Your task to perform on an android device: When is my next appointment? Image 0: 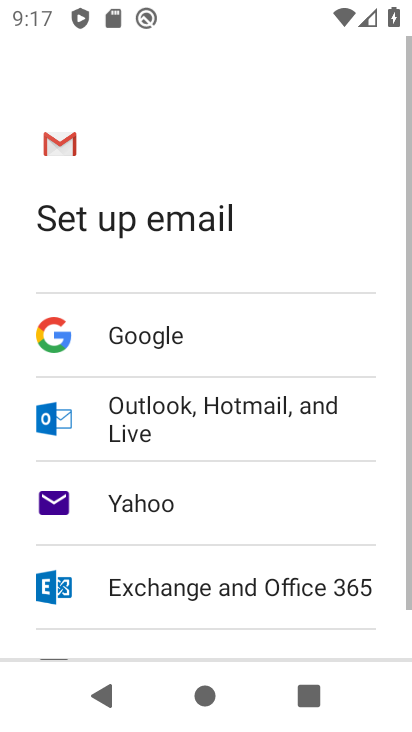
Step 0: press home button
Your task to perform on an android device: When is my next appointment? Image 1: 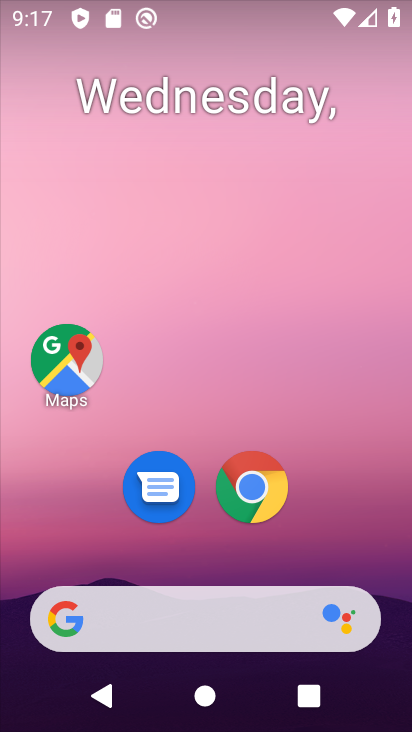
Step 1: drag from (190, 558) to (207, 188)
Your task to perform on an android device: When is my next appointment? Image 2: 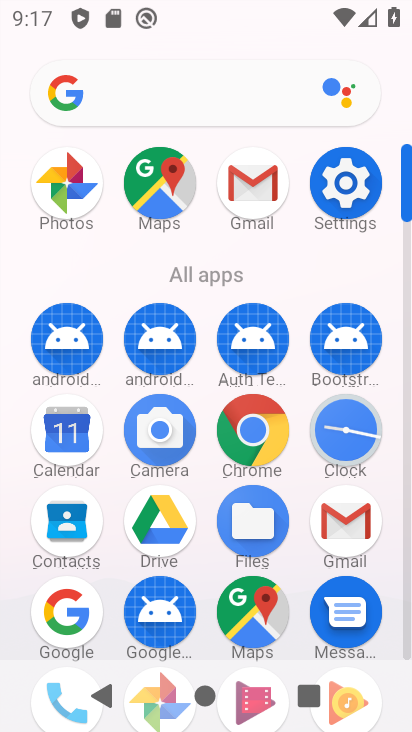
Step 2: click (66, 439)
Your task to perform on an android device: When is my next appointment? Image 3: 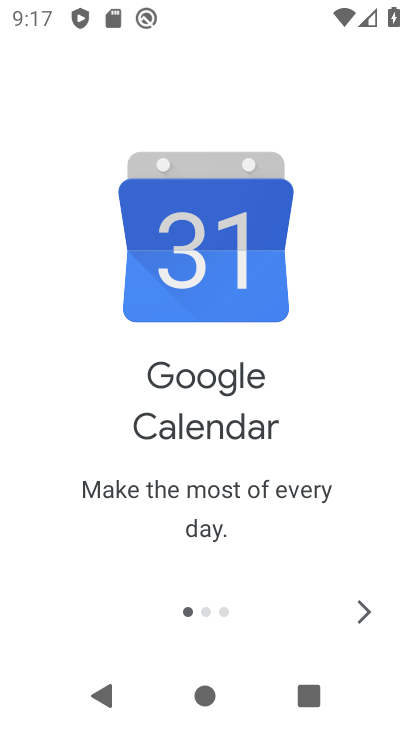
Step 3: click (353, 624)
Your task to perform on an android device: When is my next appointment? Image 4: 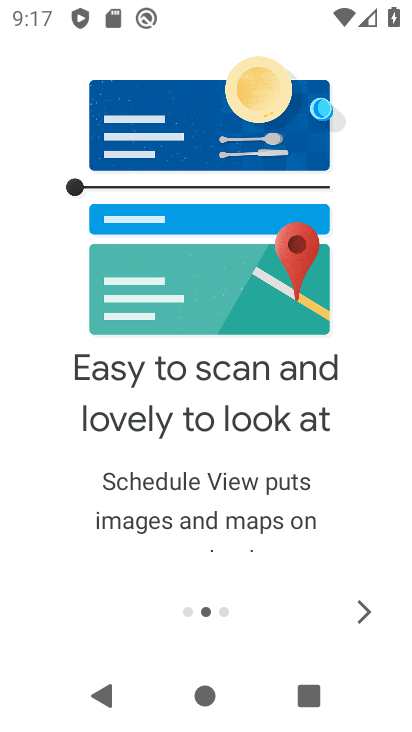
Step 4: click (353, 624)
Your task to perform on an android device: When is my next appointment? Image 5: 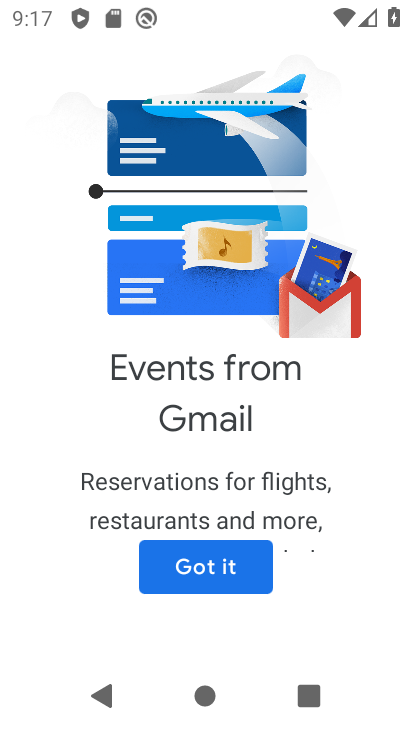
Step 5: click (227, 560)
Your task to perform on an android device: When is my next appointment? Image 6: 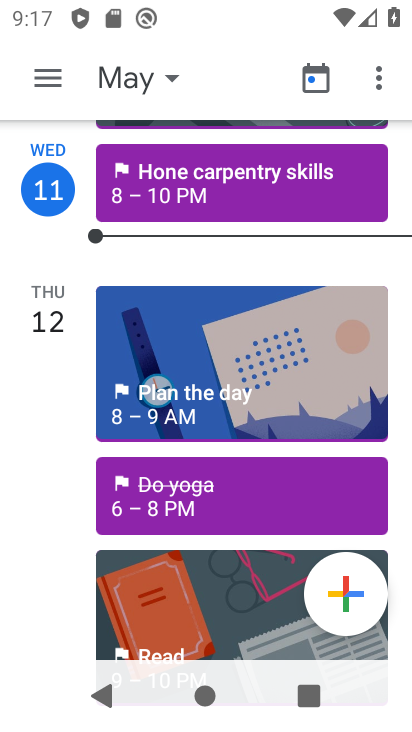
Step 6: click (162, 82)
Your task to perform on an android device: When is my next appointment? Image 7: 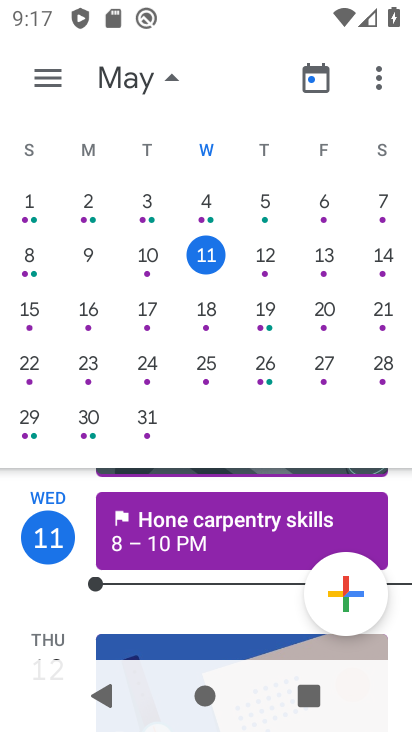
Step 7: task complete